Your task to perform on an android device: Search for razer kraken on ebay.com, select the first entry, and add it to the cart. Image 0: 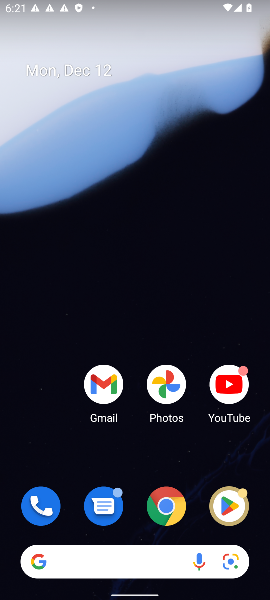
Step 0: click (161, 526)
Your task to perform on an android device: Search for razer kraken on ebay.com, select the first entry, and add it to the cart. Image 1: 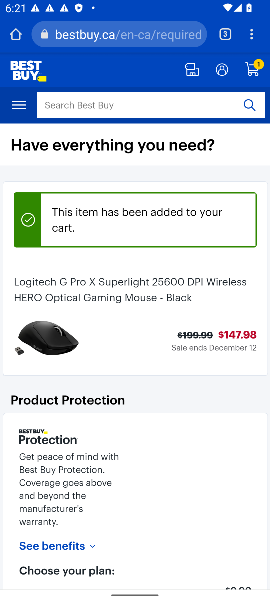
Step 1: click (113, 47)
Your task to perform on an android device: Search for razer kraken on ebay.com, select the first entry, and add it to the cart. Image 2: 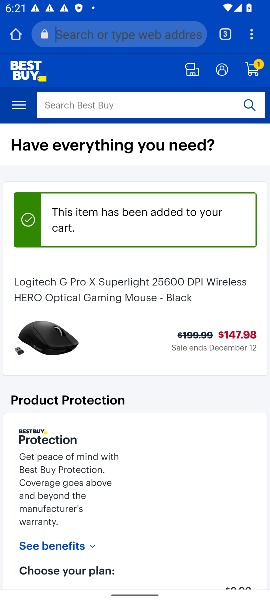
Step 2: click (113, 47)
Your task to perform on an android device: Search for razer kraken on ebay.com, select the first entry, and add it to the cart. Image 3: 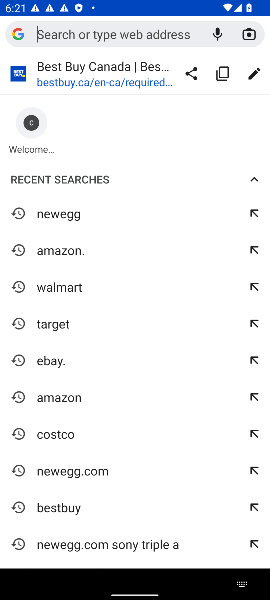
Step 3: click (64, 369)
Your task to perform on an android device: Search for razer kraken on ebay.com, select the first entry, and add it to the cart. Image 4: 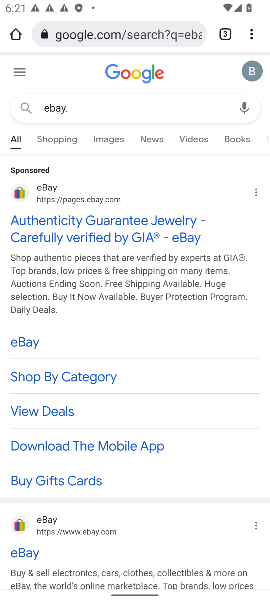
Step 4: click (129, 215)
Your task to perform on an android device: Search for razer kraken on ebay.com, select the first entry, and add it to the cart. Image 5: 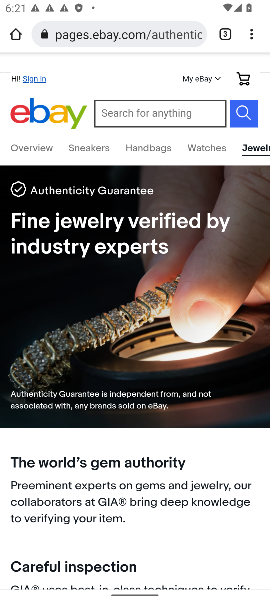
Step 5: click (138, 111)
Your task to perform on an android device: Search for razer kraken on ebay.com, select the first entry, and add it to the cart. Image 6: 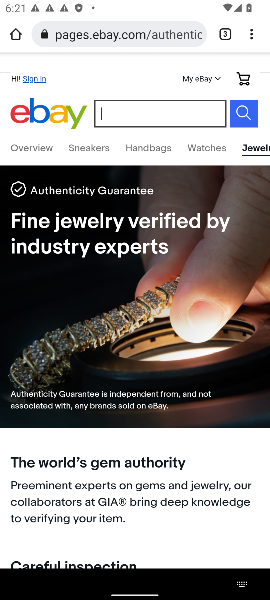
Step 6: type "razer karken"
Your task to perform on an android device: Search for razer kraken on ebay.com, select the first entry, and add it to the cart. Image 7: 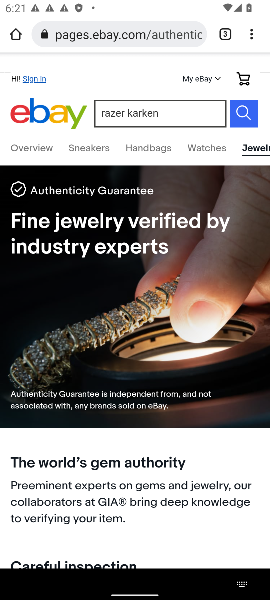
Step 7: click (247, 114)
Your task to perform on an android device: Search for razer kraken on ebay.com, select the first entry, and add it to the cart. Image 8: 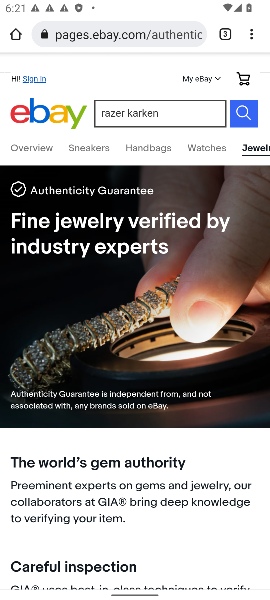
Step 8: click (185, 108)
Your task to perform on an android device: Search for razer kraken on ebay.com, select the first entry, and add it to the cart. Image 9: 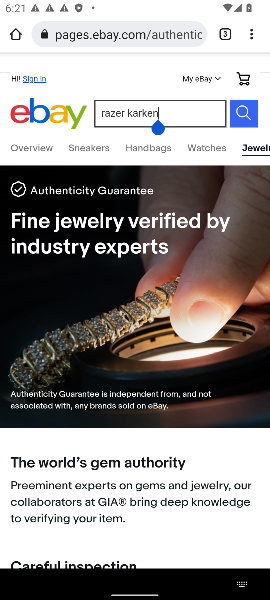
Step 9: click (19, 157)
Your task to perform on an android device: Search for razer kraken on ebay.com, select the first entry, and add it to the cart. Image 10: 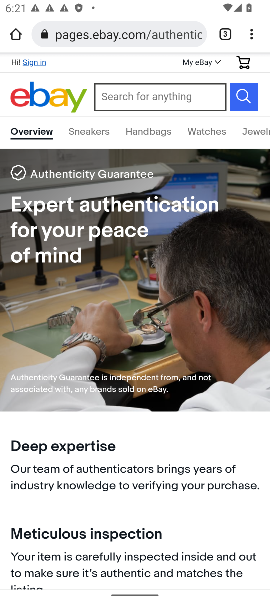
Step 10: click (172, 91)
Your task to perform on an android device: Search for razer kraken on ebay.com, select the first entry, and add it to the cart. Image 11: 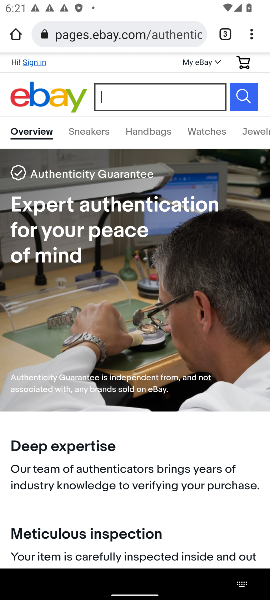
Step 11: type "razer karken"
Your task to perform on an android device: Search for razer kraken on ebay.com, select the first entry, and add it to the cart. Image 12: 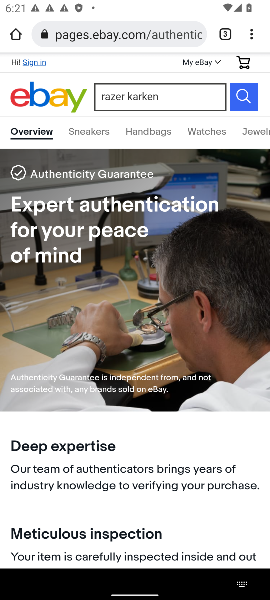
Step 12: click (236, 100)
Your task to perform on an android device: Search for razer kraken on ebay.com, select the first entry, and add it to the cart. Image 13: 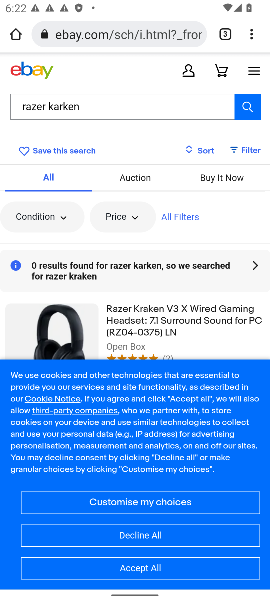
Step 13: click (163, 322)
Your task to perform on an android device: Search for razer kraken on ebay.com, select the first entry, and add it to the cart. Image 14: 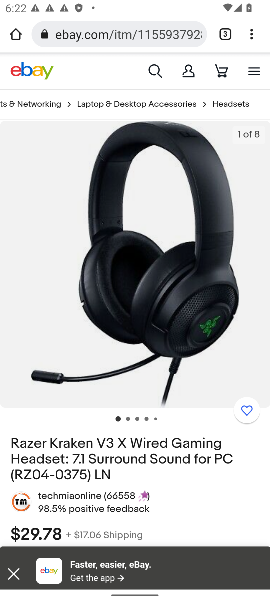
Step 14: drag from (158, 558) to (114, 208)
Your task to perform on an android device: Search for razer kraken on ebay.com, select the first entry, and add it to the cart. Image 15: 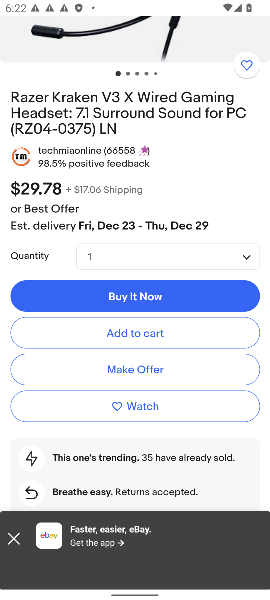
Step 15: click (129, 338)
Your task to perform on an android device: Search for razer kraken on ebay.com, select the first entry, and add it to the cart. Image 16: 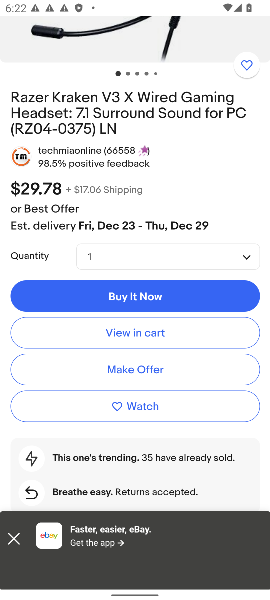
Step 16: task complete